Your task to perform on an android device: Open Reddit.com Image 0: 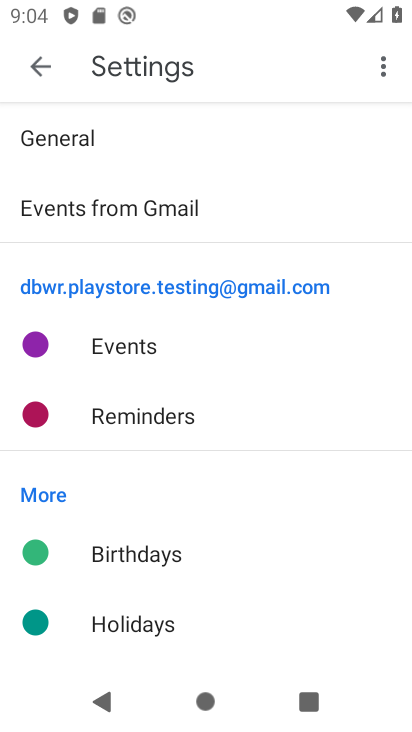
Step 0: press home button
Your task to perform on an android device: Open Reddit.com Image 1: 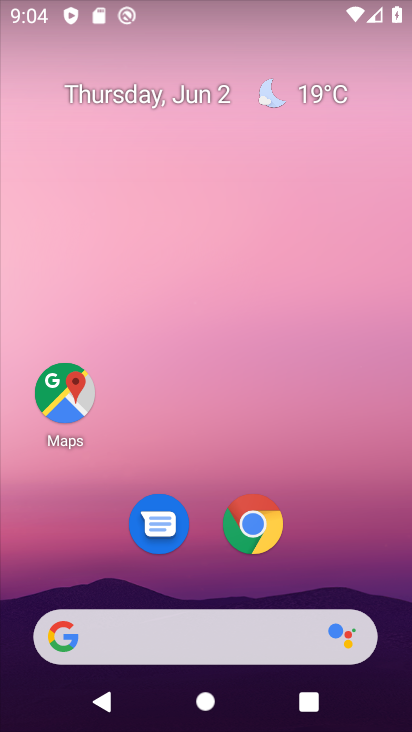
Step 1: click (276, 641)
Your task to perform on an android device: Open Reddit.com Image 2: 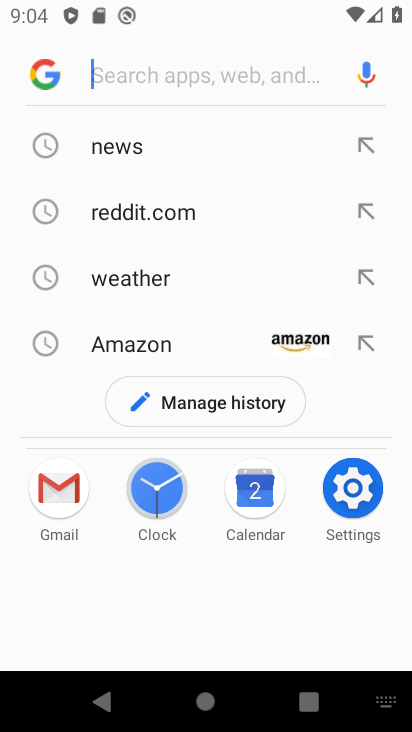
Step 2: click (129, 207)
Your task to perform on an android device: Open Reddit.com Image 3: 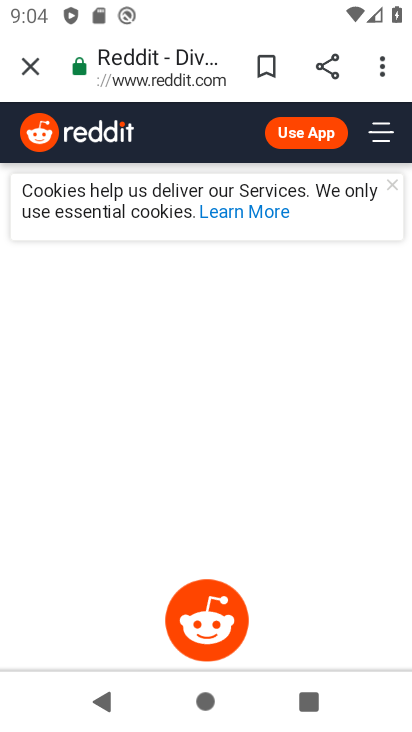
Step 3: task complete